Your task to perform on an android device: What's the weather? Image 0: 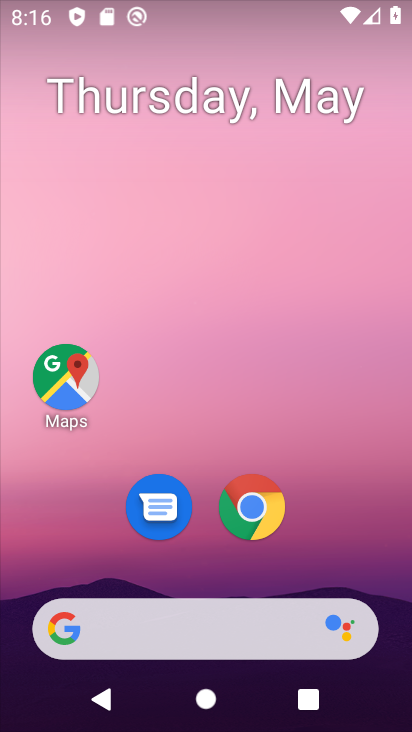
Step 0: drag from (381, 503) to (342, 96)
Your task to perform on an android device: What's the weather? Image 1: 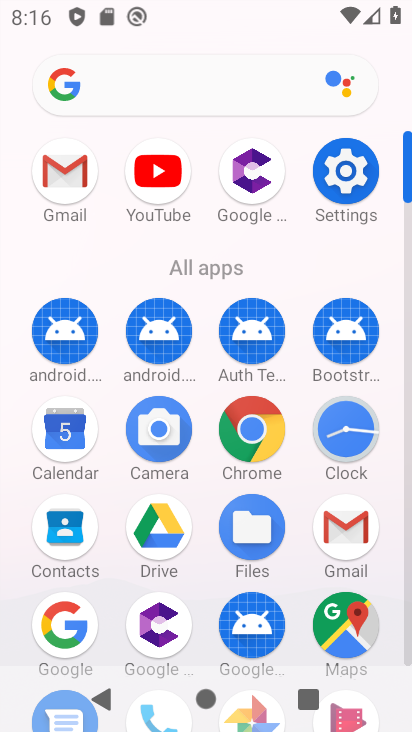
Step 1: drag from (293, 562) to (300, 289)
Your task to perform on an android device: What's the weather? Image 2: 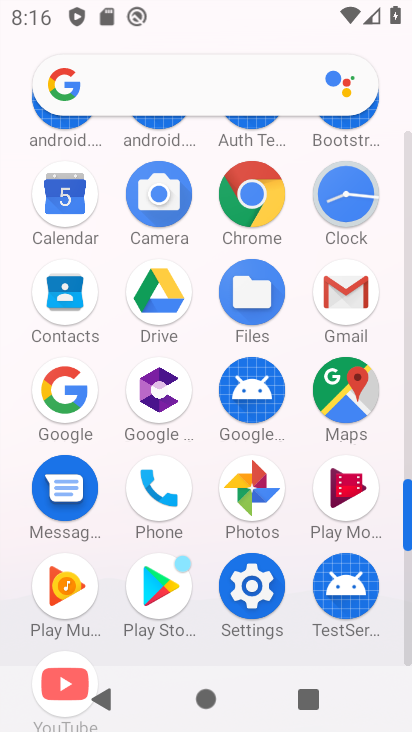
Step 2: click (273, 205)
Your task to perform on an android device: What's the weather? Image 3: 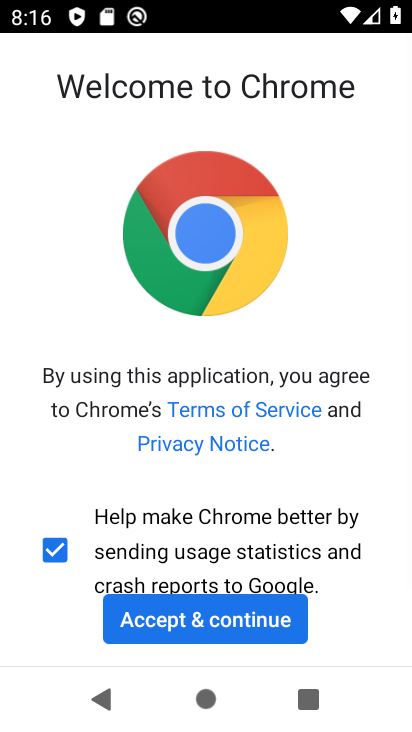
Step 3: click (204, 630)
Your task to perform on an android device: What's the weather? Image 4: 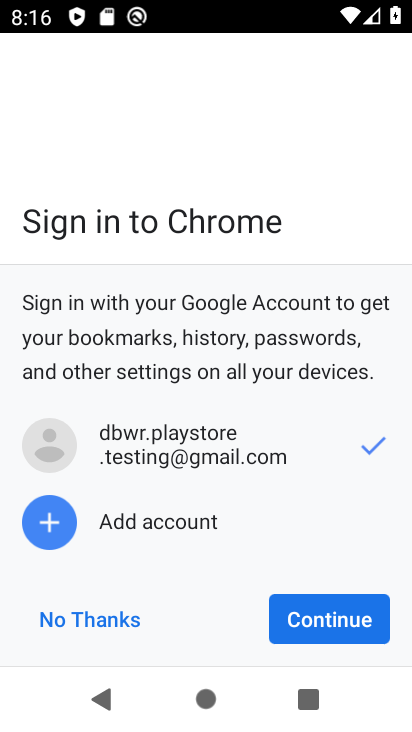
Step 4: click (333, 624)
Your task to perform on an android device: What's the weather? Image 5: 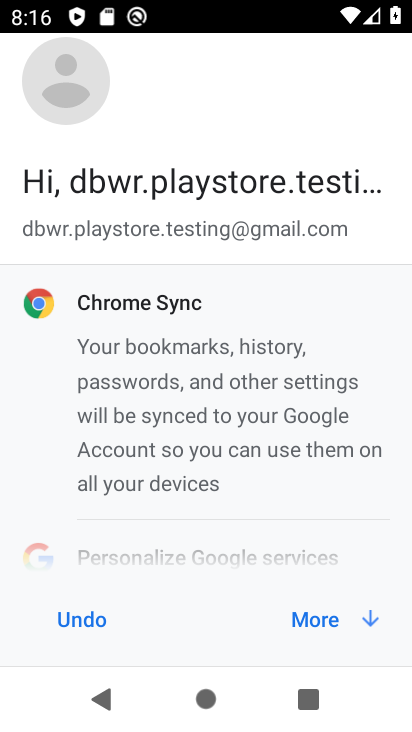
Step 5: click (332, 625)
Your task to perform on an android device: What's the weather? Image 6: 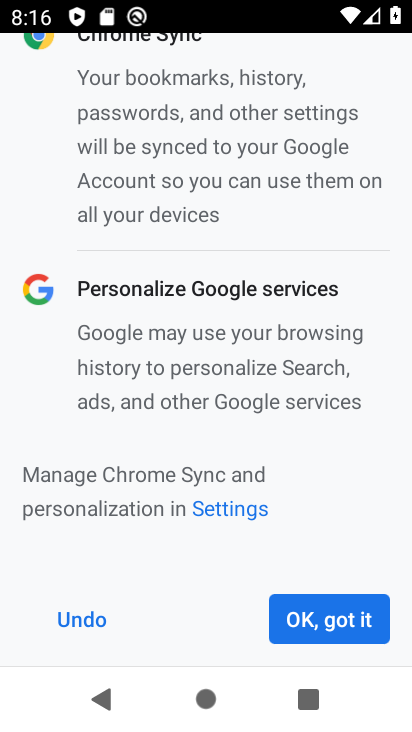
Step 6: click (331, 624)
Your task to perform on an android device: What's the weather? Image 7: 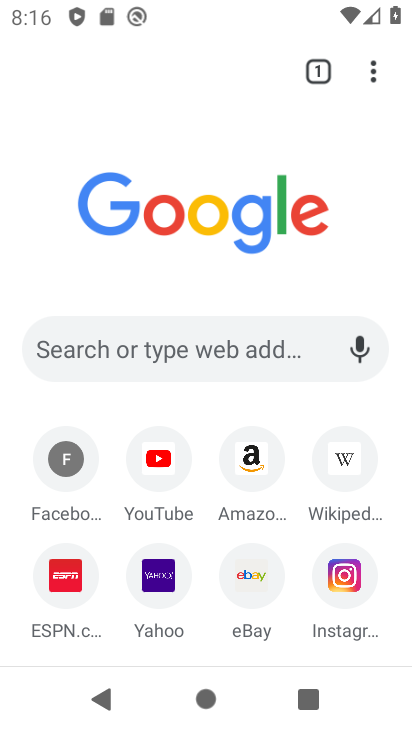
Step 7: click (234, 340)
Your task to perform on an android device: What's the weather? Image 8: 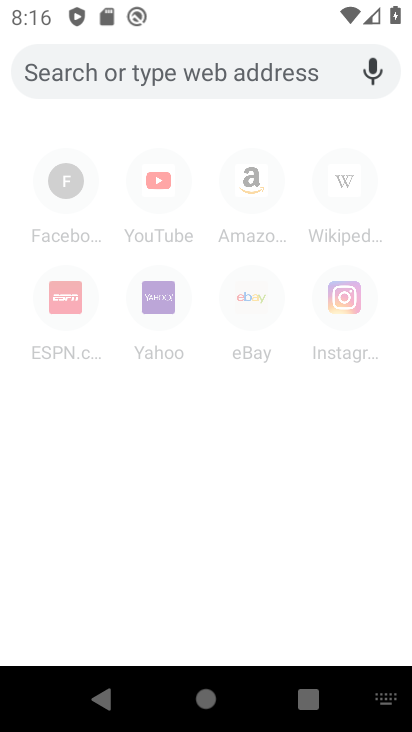
Step 8: type "what's the weather "
Your task to perform on an android device: What's the weather? Image 9: 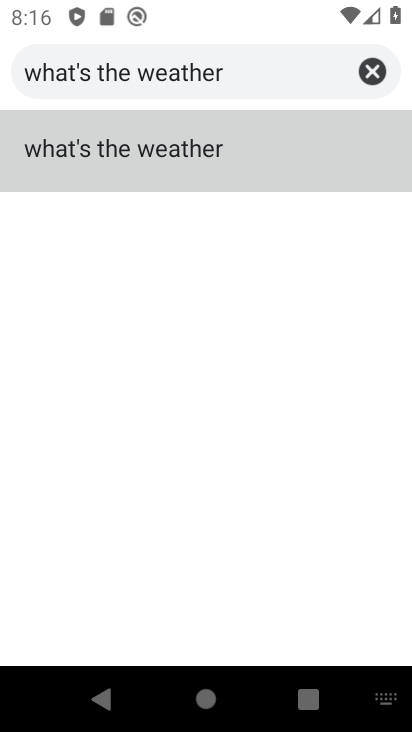
Step 9: click (156, 156)
Your task to perform on an android device: What's the weather? Image 10: 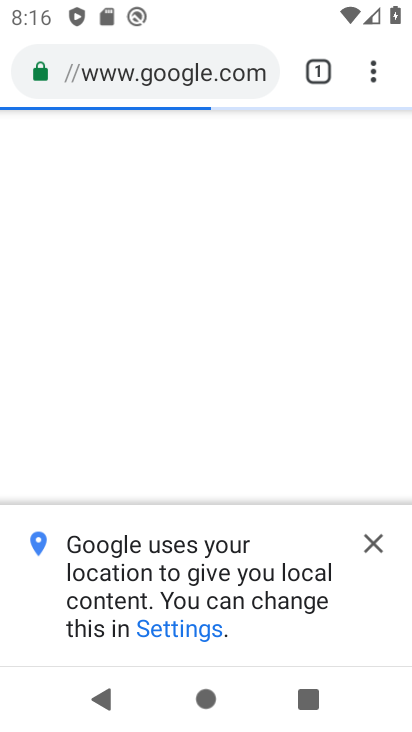
Step 10: click (359, 540)
Your task to perform on an android device: What's the weather? Image 11: 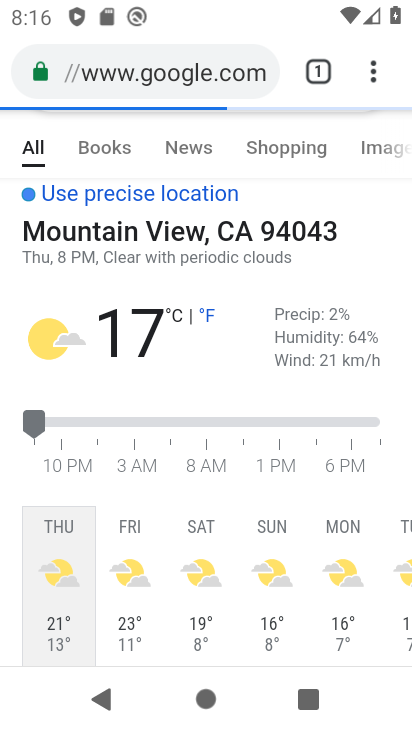
Step 11: task complete